Your task to perform on an android device: turn off notifications settings in the gmail app Image 0: 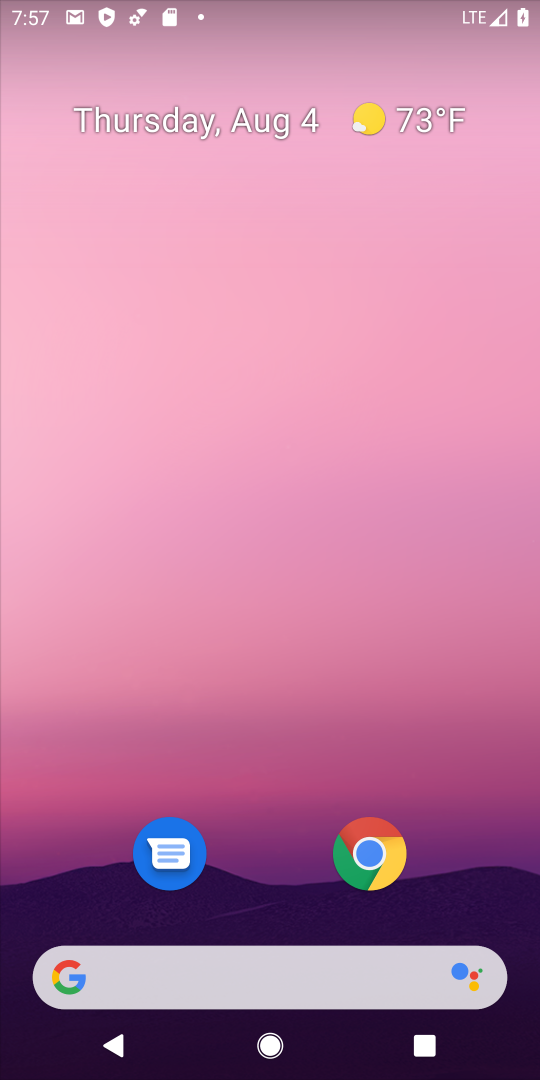
Step 0: drag from (105, 904) to (188, 337)
Your task to perform on an android device: turn off notifications settings in the gmail app Image 1: 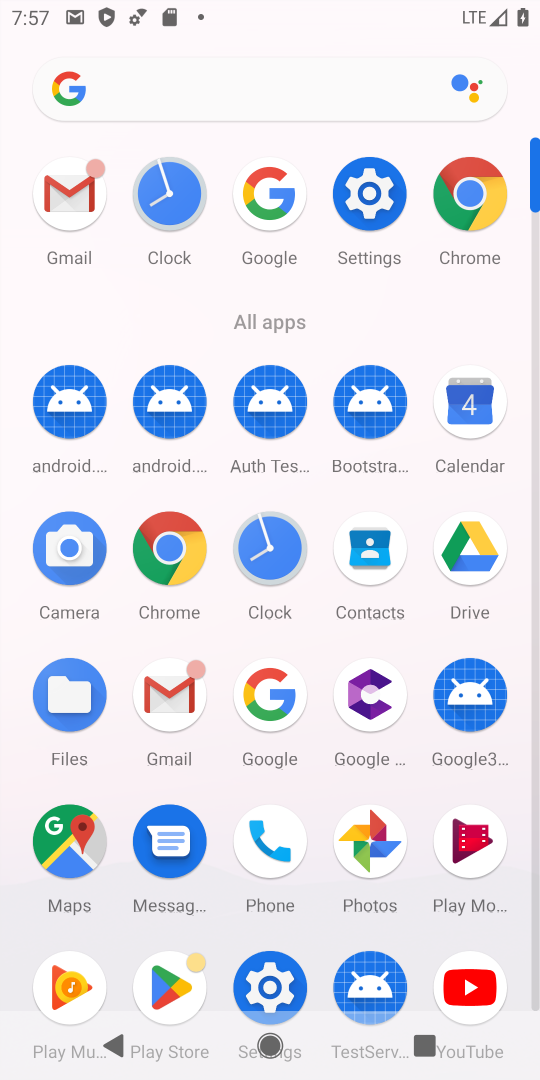
Step 1: click (58, 211)
Your task to perform on an android device: turn off notifications settings in the gmail app Image 2: 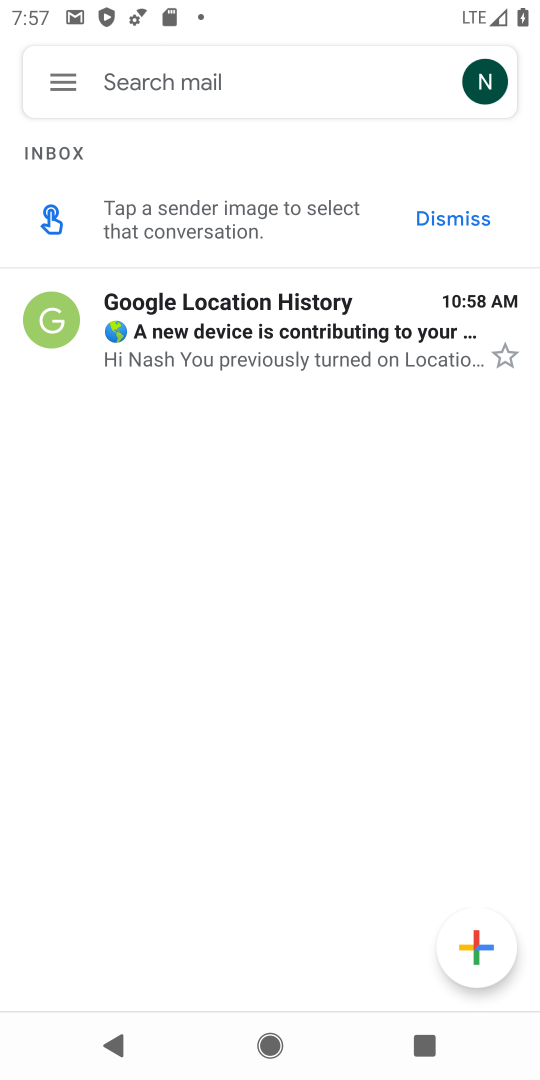
Step 2: drag from (59, 69) to (124, 69)
Your task to perform on an android device: turn off notifications settings in the gmail app Image 3: 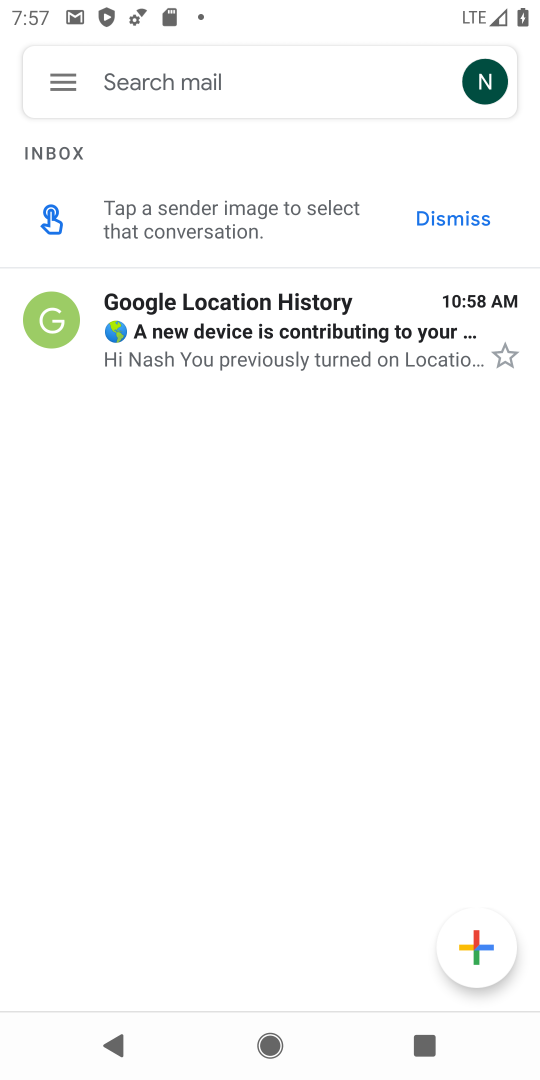
Step 3: click (53, 86)
Your task to perform on an android device: turn off notifications settings in the gmail app Image 4: 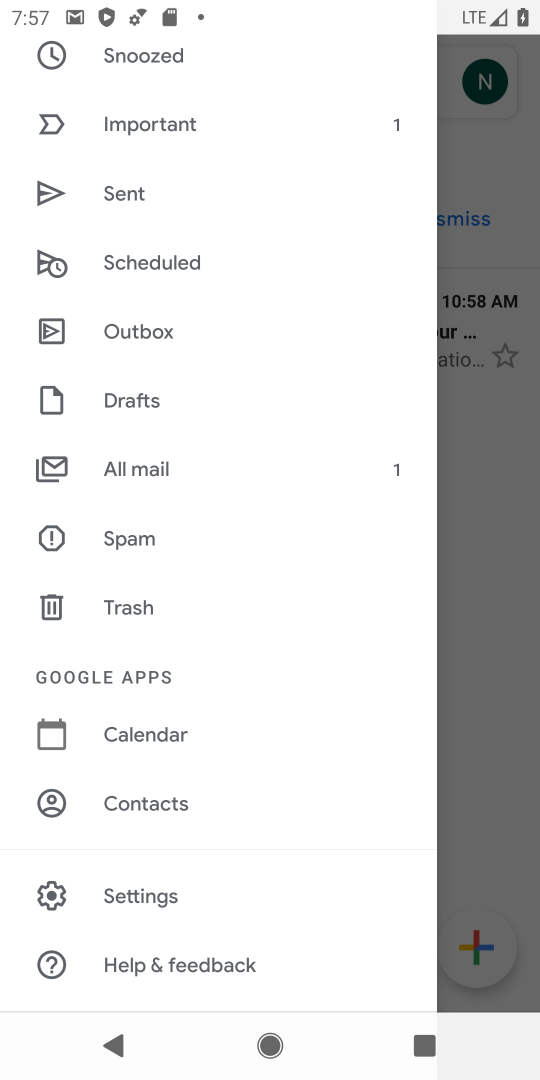
Step 4: click (158, 875)
Your task to perform on an android device: turn off notifications settings in the gmail app Image 5: 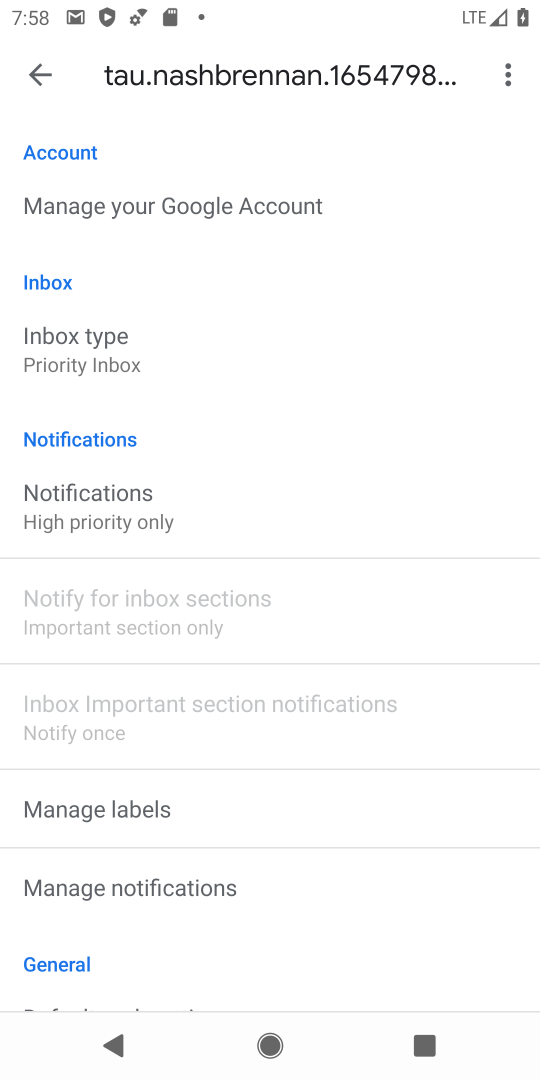
Step 5: click (119, 859)
Your task to perform on an android device: turn off notifications settings in the gmail app Image 6: 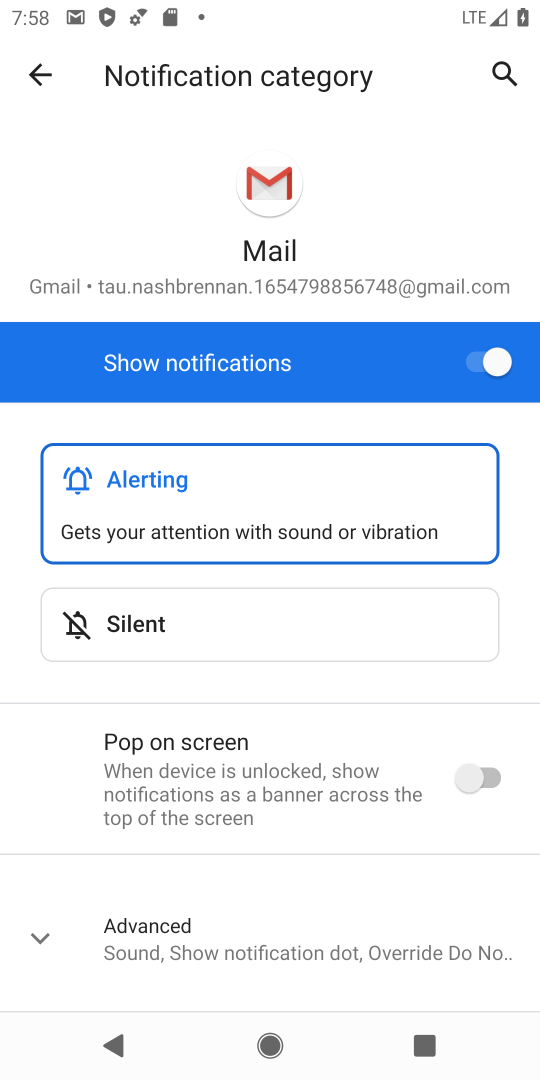
Step 6: click (475, 352)
Your task to perform on an android device: turn off notifications settings in the gmail app Image 7: 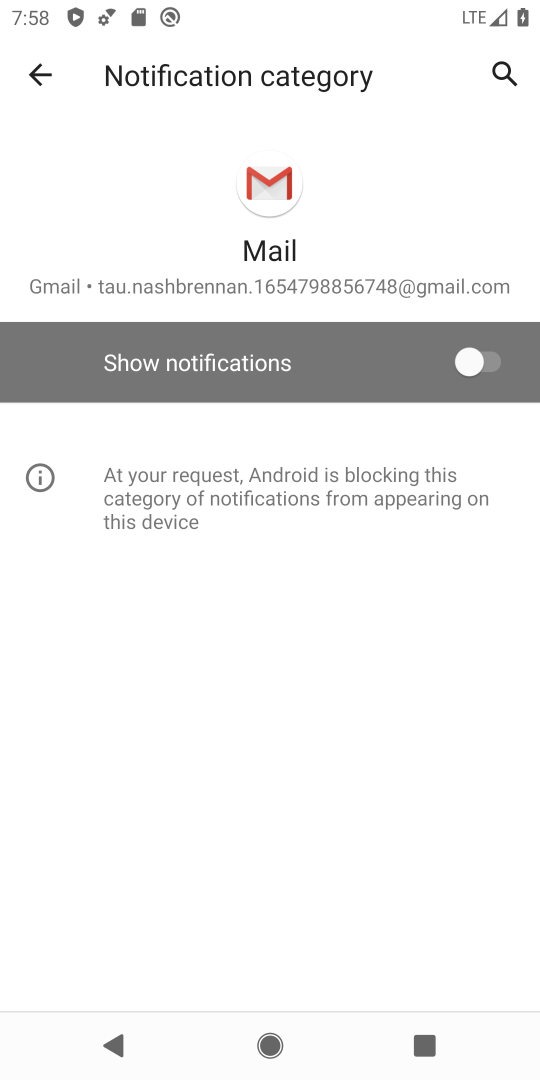
Step 7: task complete